Your task to perform on an android device: allow notifications from all sites in the chrome app Image 0: 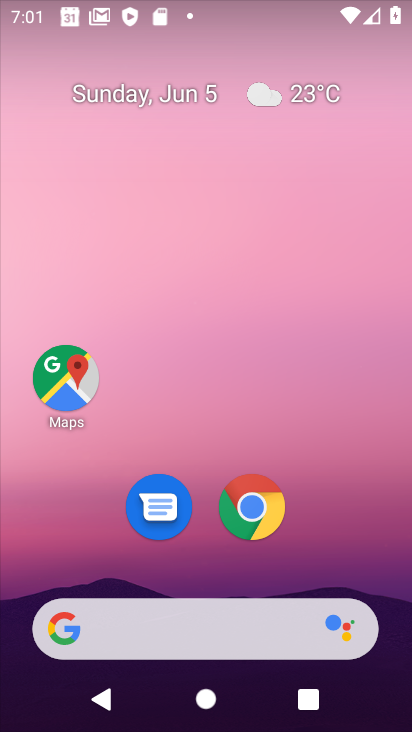
Step 0: drag from (270, 623) to (250, 128)
Your task to perform on an android device: allow notifications from all sites in the chrome app Image 1: 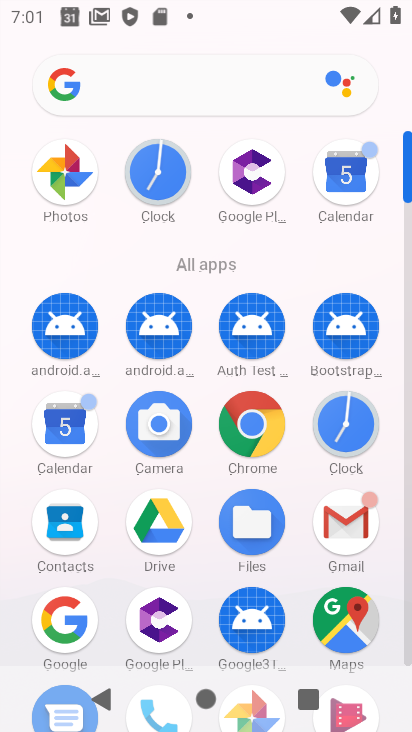
Step 1: click (263, 452)
Your task to perform on an android device: allow notifications from all sites in the chrome app Image 2: 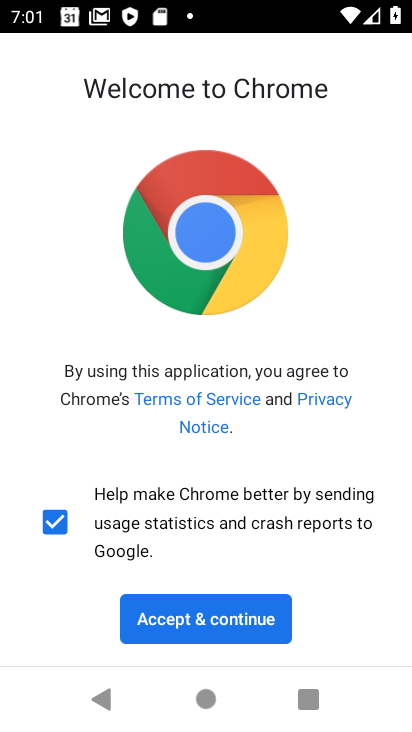
Step 2: click (230, 622)
Your task to perform on an android device: allow notifications from all sites in the chrome app Image 3: 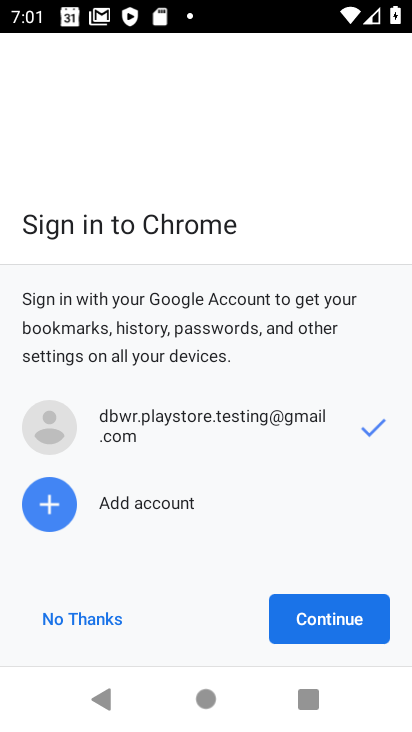
Step 3: click (364, 620)
Your task to perform on an android device: allow notifications from all sites in the chrome app Image 4: 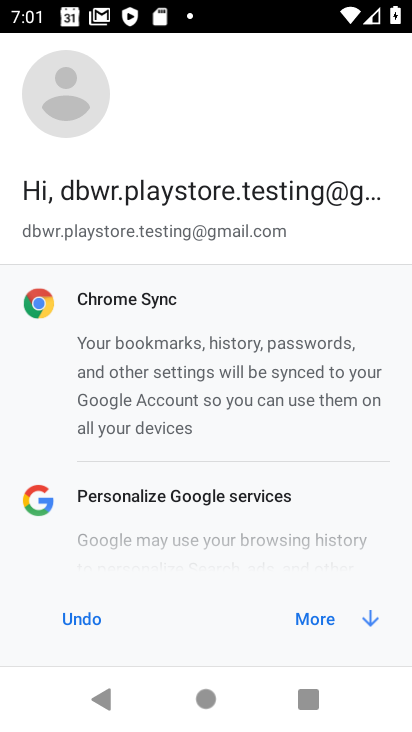
Step 4: click (382, 619)
Your task to perform on an android device: allow notifications from all sites in the chrome app Image 5: 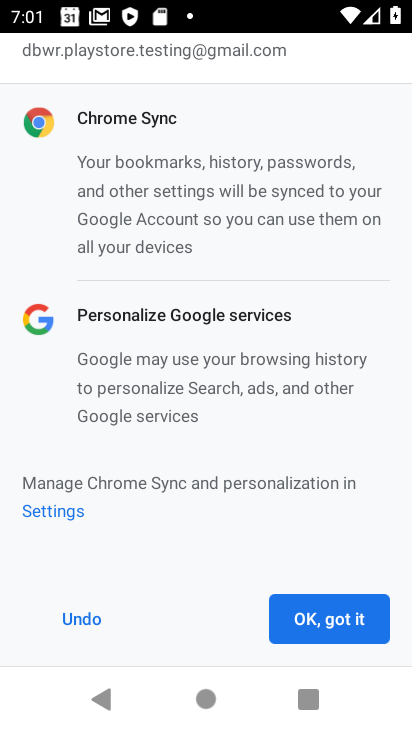
Step 5: click (378, 615)
Your task to perform on an android device: allow notifications from all sites in the chrome app Image 6: 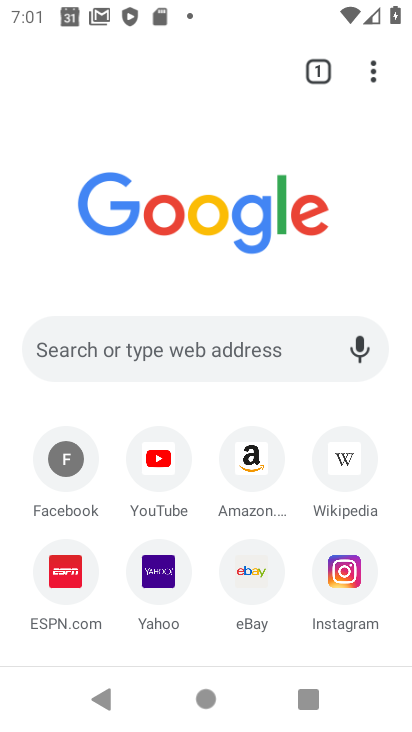
Step 6: click (383, 58)
Your task to perform on an android device: allow notifications from all sites in the chrome app Image 7: 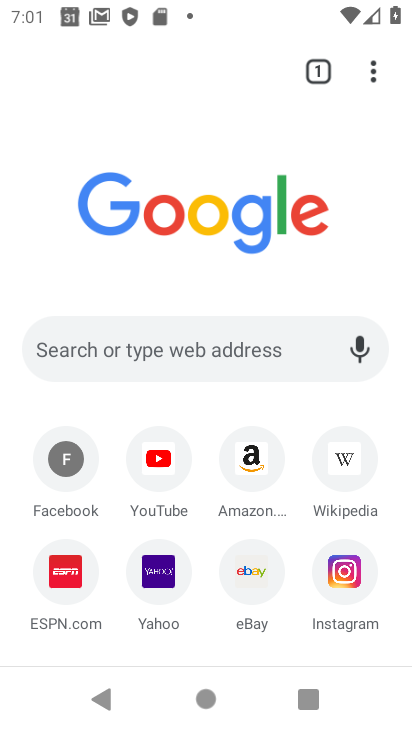
Step 7: click (364, 88)
Your task to perform on an android device: allow notifications from all sites in the chrome app Image 8: 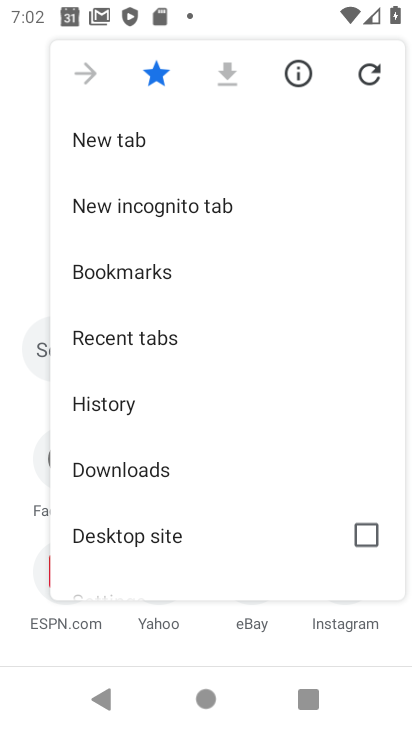
Step 8: drag from (162, 541) to (175, 330)
Your task to perform on an android device: allow notifications from all sites in the chrome app Image 9: 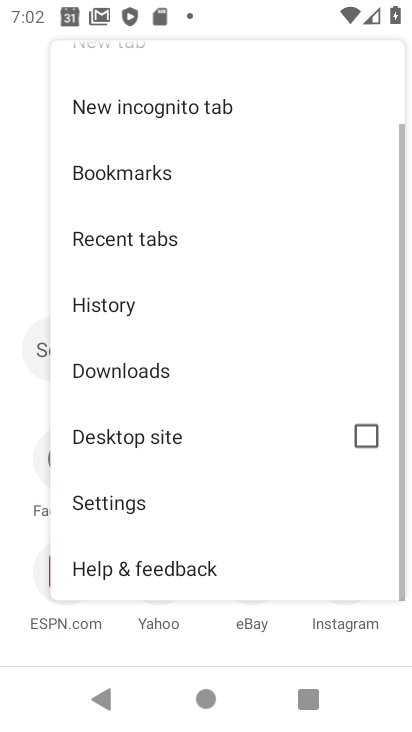
Step 9: click (156, 487)
Your task to perform on an android device: allow notifications from all sites in the chrome app Image 10: 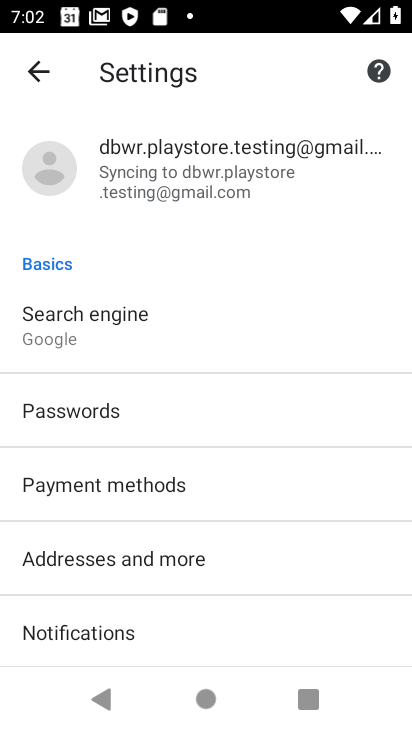
Step 10: drag from (234, 554) to (301, 195)
Your task to perform on an android device: allow notifications from all sites in the chrome app Image 11: 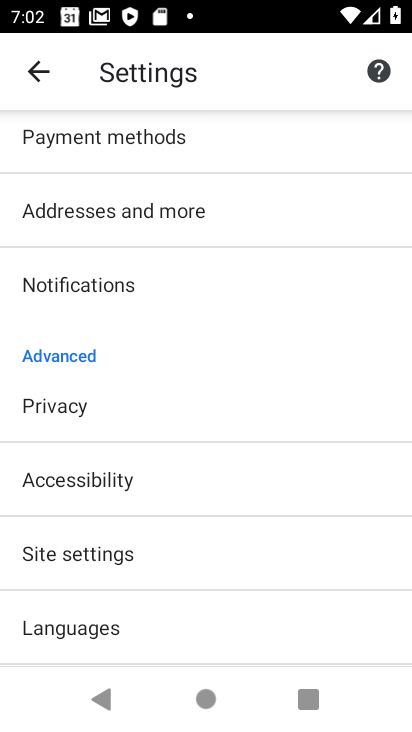
Step 11: click (145, 537)
Your task to perform on an android device: allow notifications from all sites in the chrome app Image 12: 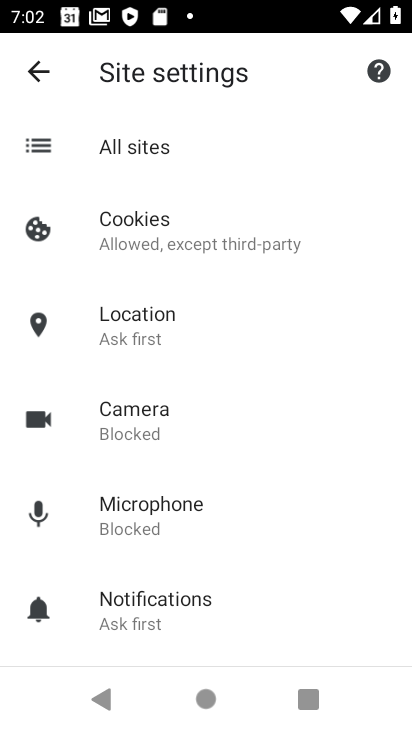
Step 12: click (139, 607)
Your task to perform on an android device: allow notifications from all sites in the chrome app Image 13: 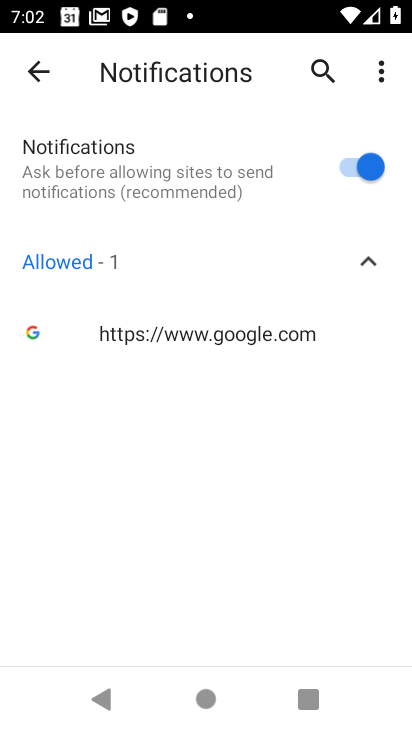
Step 13: click (347, 158)
Your task to perform on an android device: allow notifications from all sites in the chrome app Image 14: 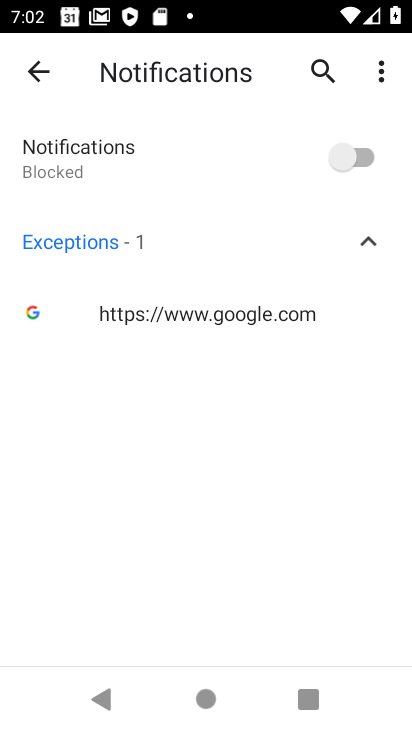
Step 14: click (342, 159)
Your task to perform on an android device: allow notifications from all sites in the chrome app Image 15: 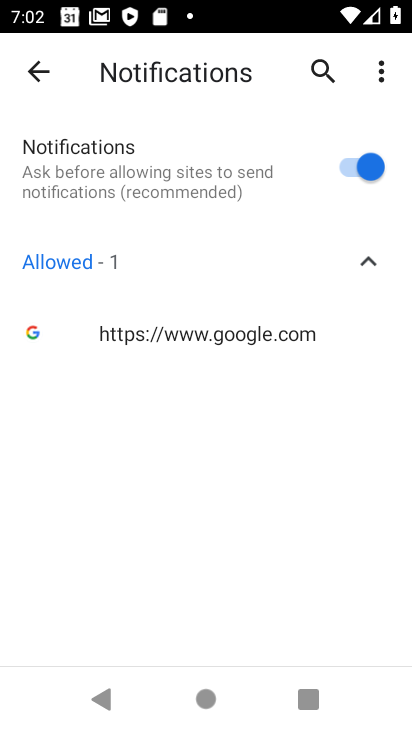
Step 15: task complete